Your task to perform on an android device: Open the phone app and click the voicemail tab. Image 0: 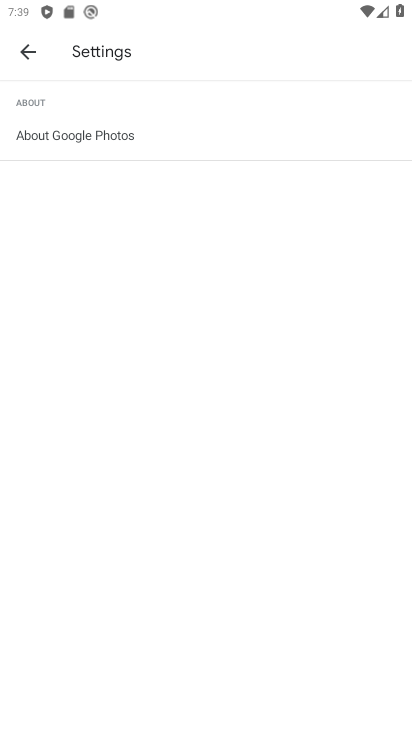
Step 0: press home button
Your task to perform on an android device: Open the phone app and click the voicemail tab. Image 1: 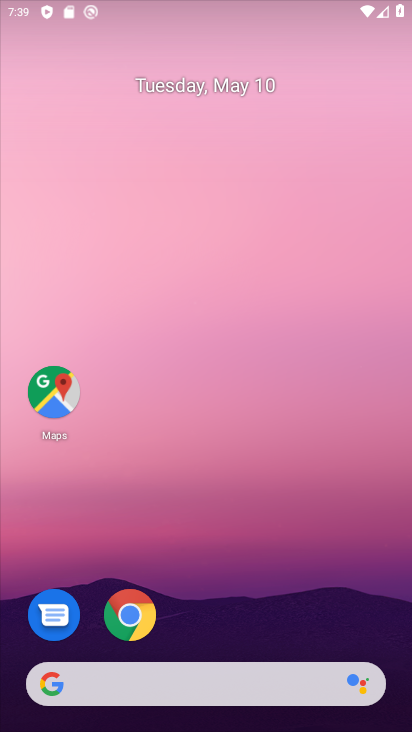
Step 1: drag from (208, 650) to (296, 42)
Your task to perform on an android device: Open the phone app and click the voicemail tab. Image 2: 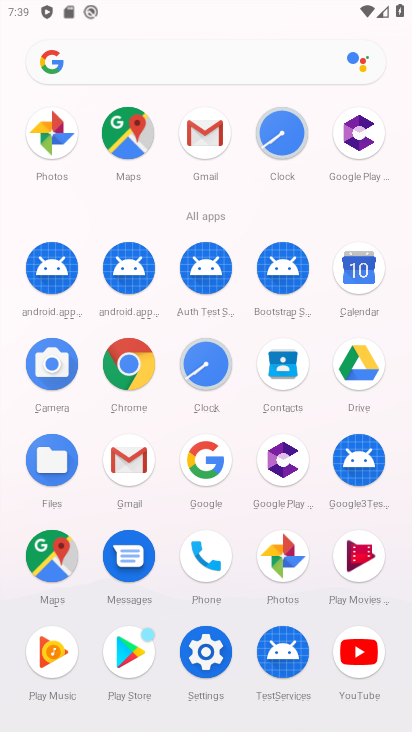
Step 2: click (200, 558)
Your task to perform on an android device: Open the phone app and click the voicemail tab. Image 3: 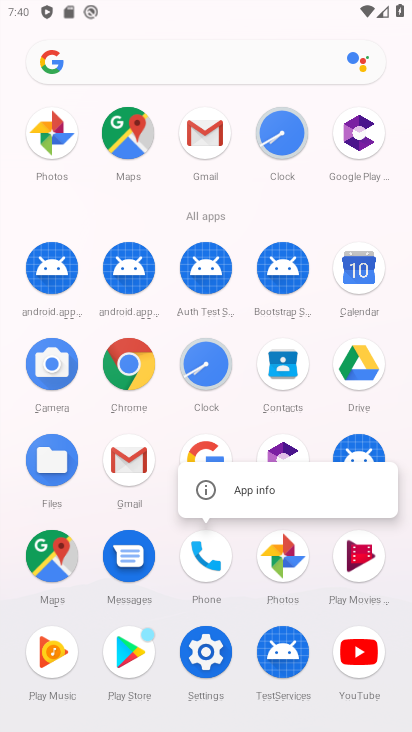
Step 3: click (195, 558)
Your task to perform on an android device: Open the phone app and click the voicemail tab. Image 4: 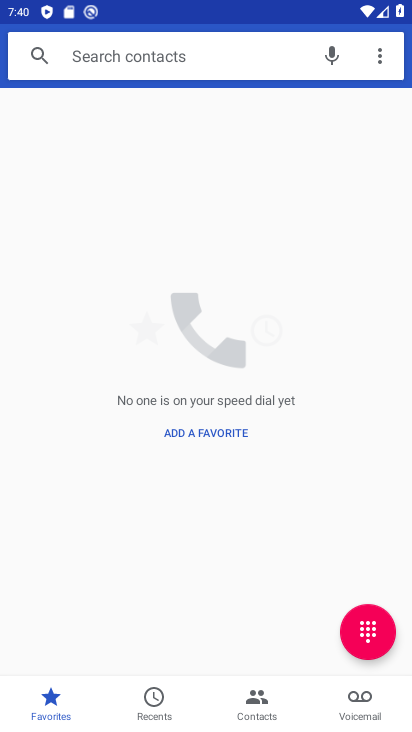
Step 4: click (360, 703)
Your task to perform on an android device: Open the phone app and click the voicemail tab. Image 5: 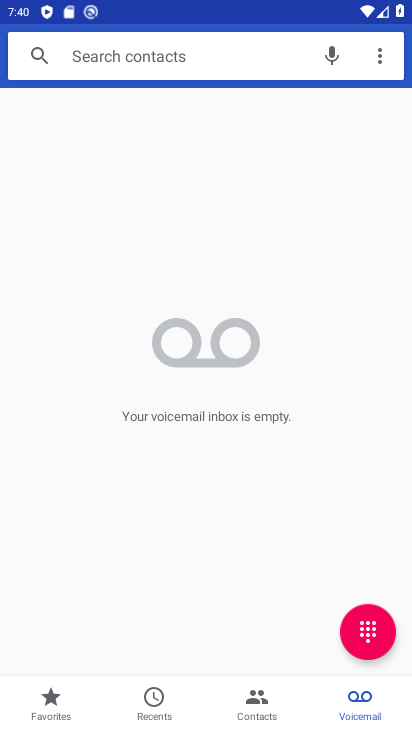
Step 5: task complete